Your task to perform on an android device: allow cookies in the chrome app Image 0: 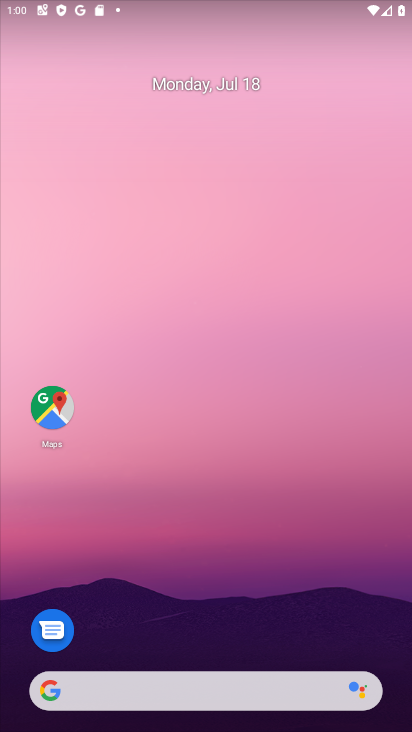
Step 0: drag from (194, 664) to (223, 5)
Your task to perform on an android device: allow cookies in the chrome app Image 1: 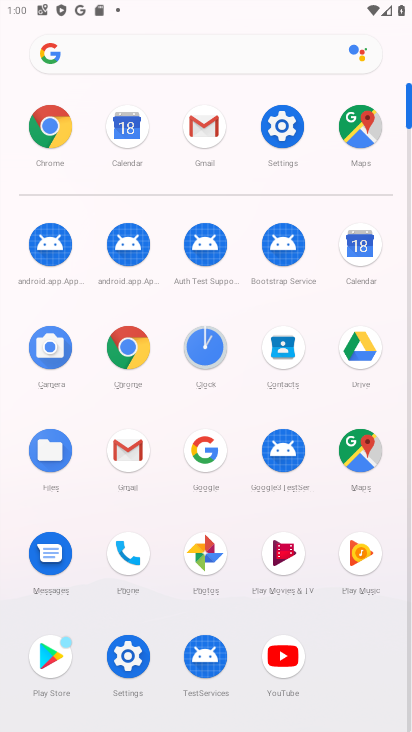
Step 1: click (123, 346)
Your task to perform on an android device: allow cookies in the chrome app Image 2: 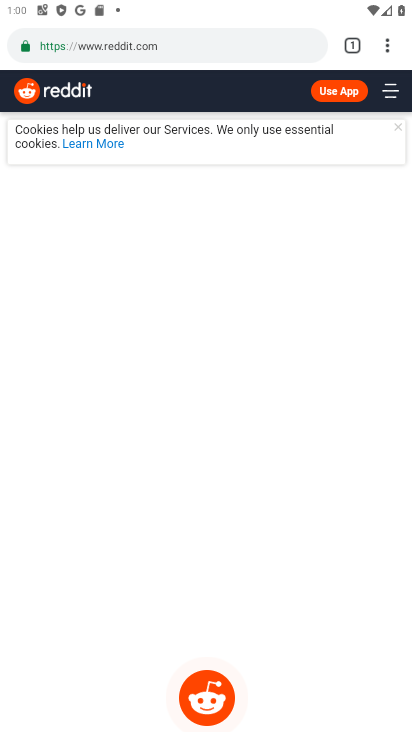
Step 2: click (385, 44)
Your task to perform on an android device: allow cookies in the chrome app Image 3: 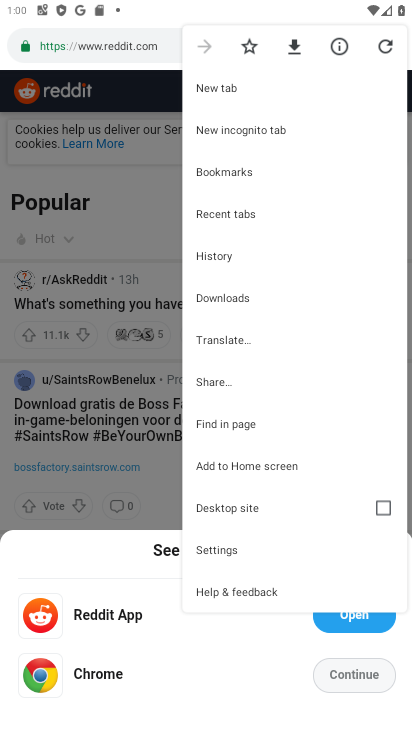
Step 3: click (244, 543)
Your task to perform on an android device: allow cookies in the chrome app Image 4: 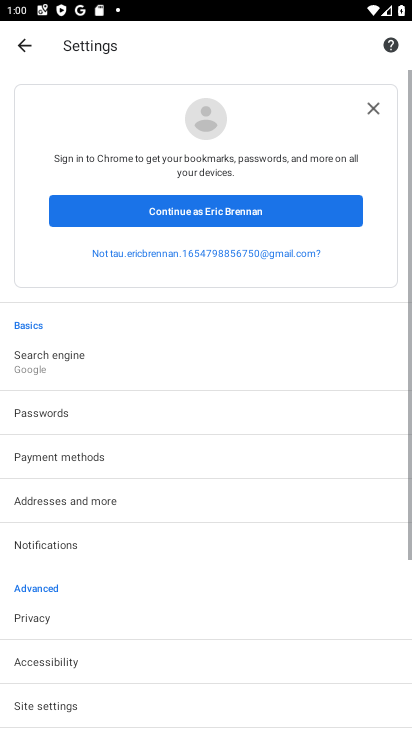
Step 4: drag from (216, 569) to (215, 145)
Your task to perform on an android device: allow cookies in the chrome app Image 5: 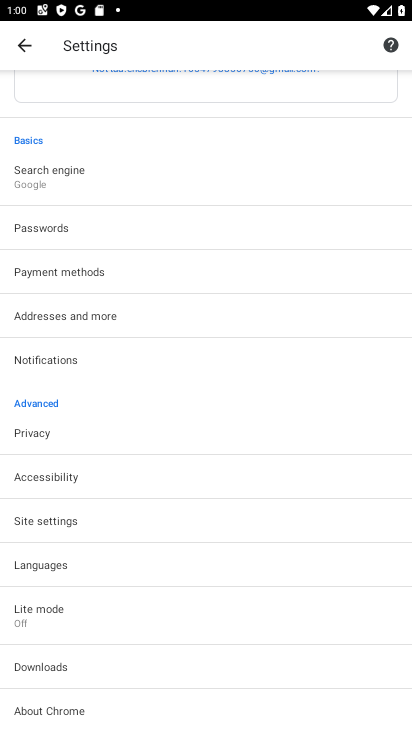
Step 5: click (85, 528)
Your task to perform on an android device: allow cookies in the chrome app Image 6: 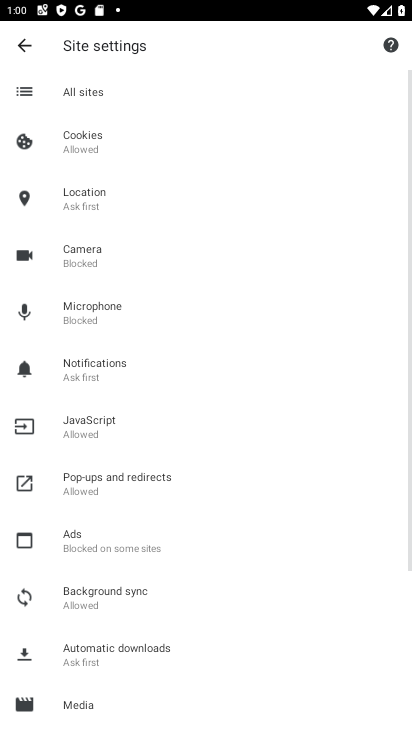
Step 6: click (105, 137)
Your task to perform on an android device: allow cookies in the chrome app Image 7: 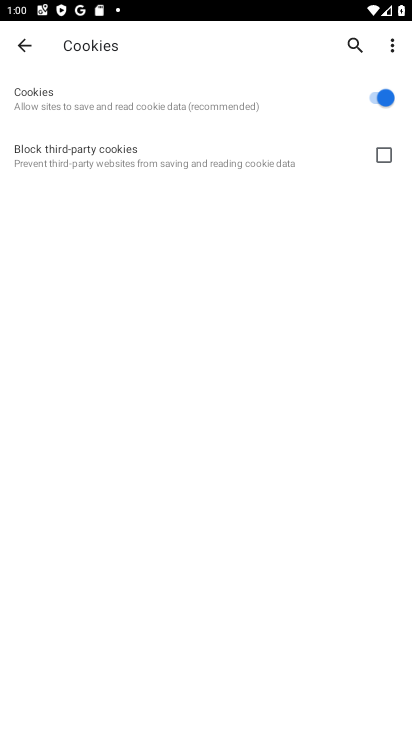
Step 7: task complete